Your task to perform on an android device: Go to Google Image 0: 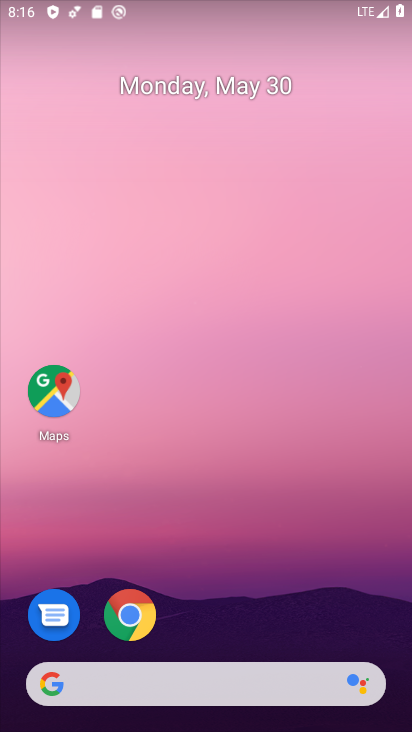
Step 0: drag from (109, 729) to (1, 46)
Your task to perform on an android device: Go to Google Image 1: 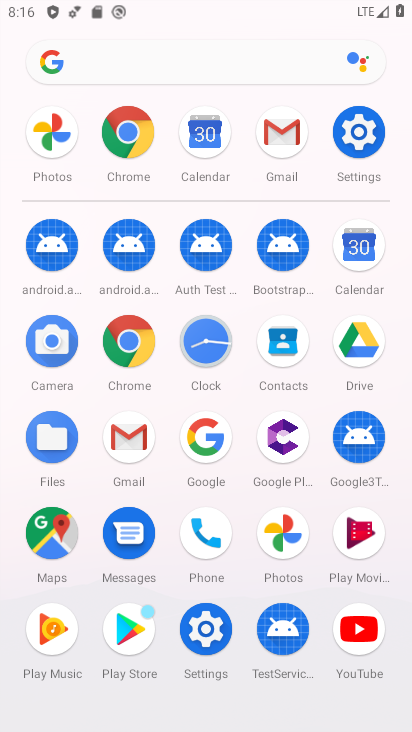
Step 1: click (195, 433)
Your task to perform on an android device: Go to Google Image 2: 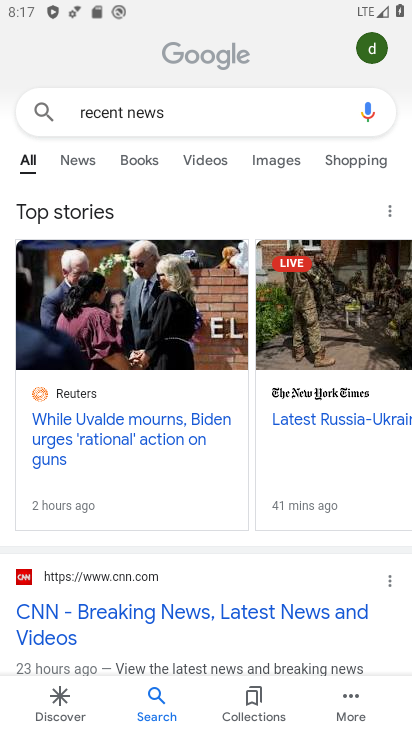
Step 2: task complete